Your task to perform on an android device: Open Chrome and go to the settings page Image 0: 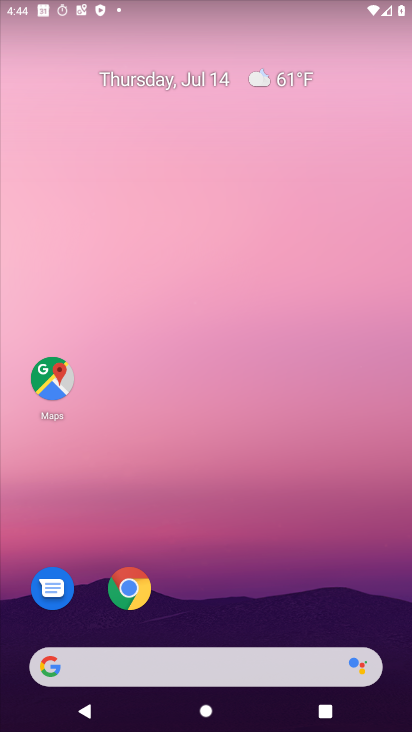
Step 0: click (129, 588)
Your task to perform on an android device: Open Chrome and go to the settings page Image 1: 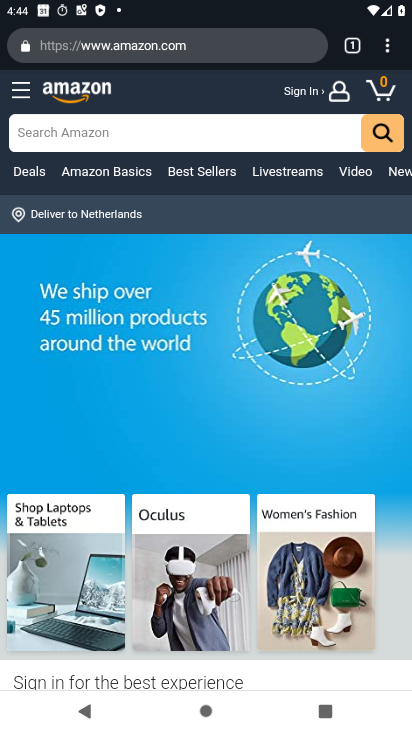
Step 1: click (388, 50)
Your task to perform on an android device: Open Chrome and go to the settings page Image 2: 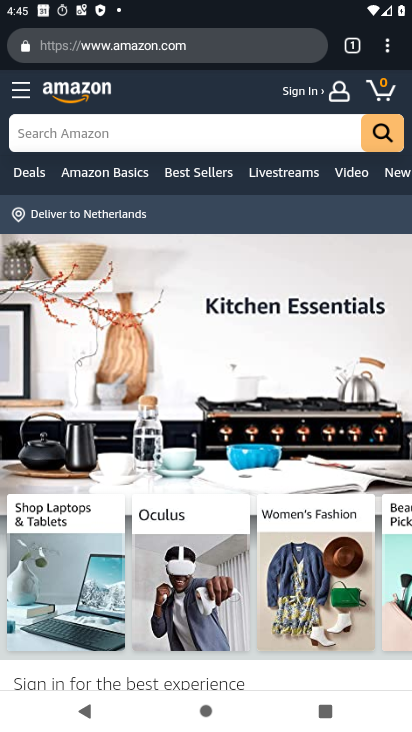
Step 2: click (388, 48)
Your task to perform on an android device: Open Chrome and go to the settings page Image 3: 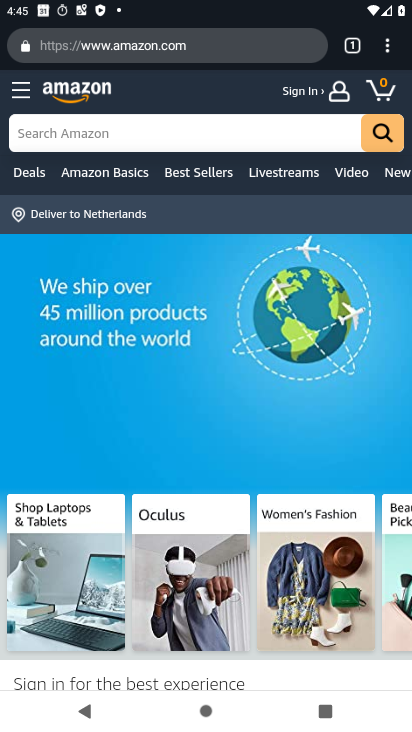
Step 3: click (388, 48)
Your task to perform on an android device: Open Chrome and go to the settings page Image 4: 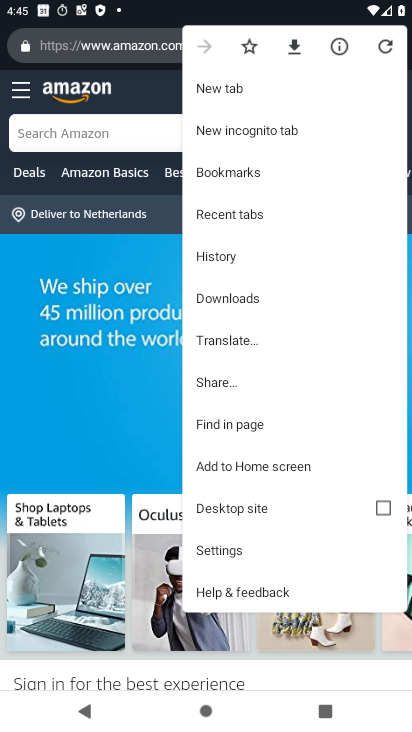
Step 4: click (213, 542)
Your task to perform on an android device: Open Chrome and go to the settings page Image 5: 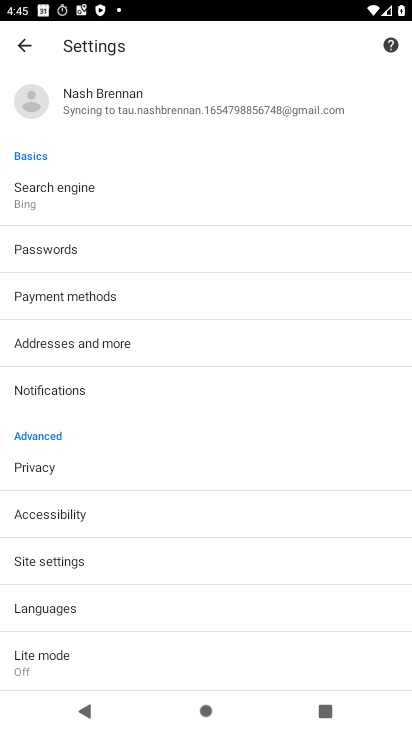
Step 5: task complete